Your task to perform on an android device: What's on my calendar tomorrow? Image 0: 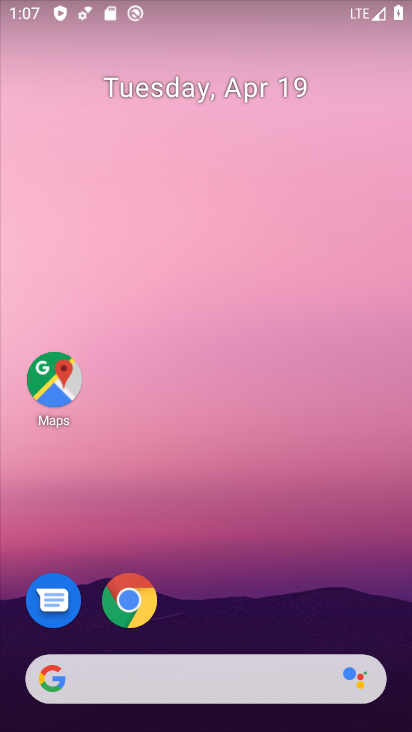
Step 0: drag from (211, 652) to (191, 23)
Your task to perform on an android device: What's on my calendar tomorrow? Image 1: 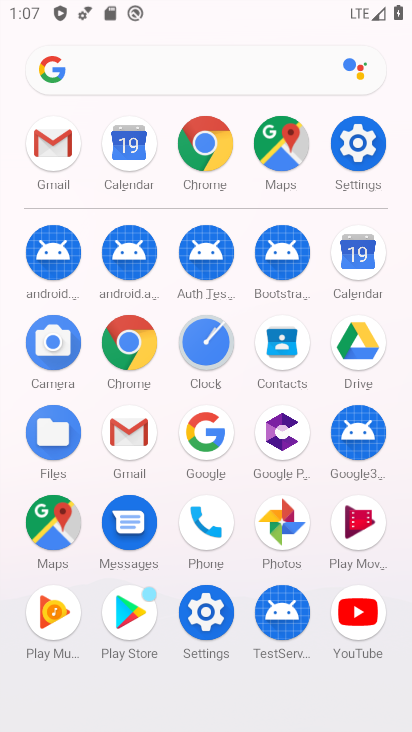
Step 1: click (366, 258)
Your task to perform on an android device: What's on my calendar tomorrow? Image 2: 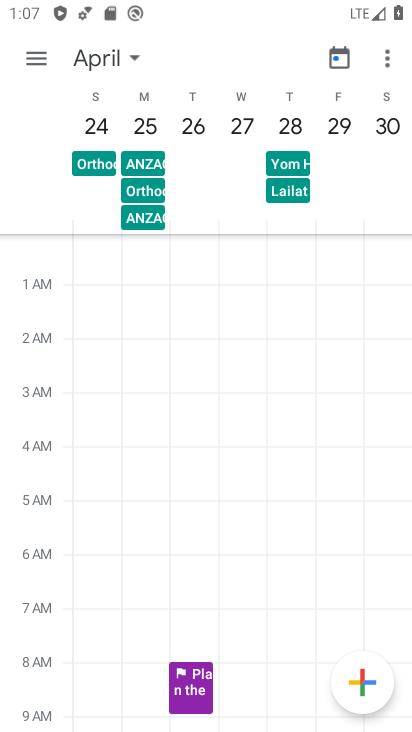
Step 2: click (40, 49)
Your task to perform on an android device: What's on my calendar tomorrow? Image 3: 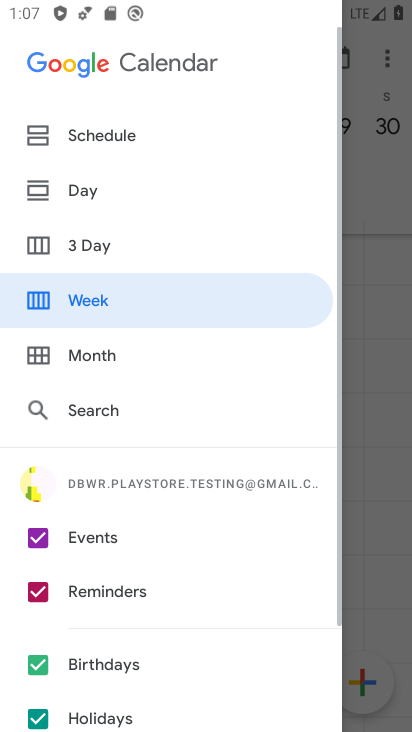
Step 3: click (81, 251)
Your task to perform on an android device: What's on my calendar tomorrow? Image 4: 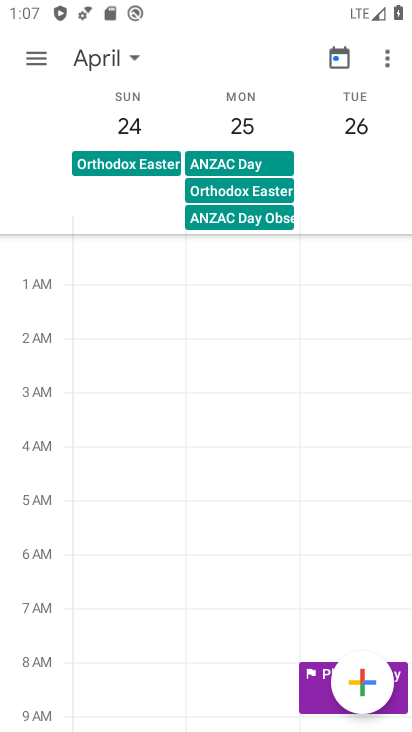
Step 4: click (251, 113)
Your task to perform on an android device: What's on my calendar tomorrow? Image 5: 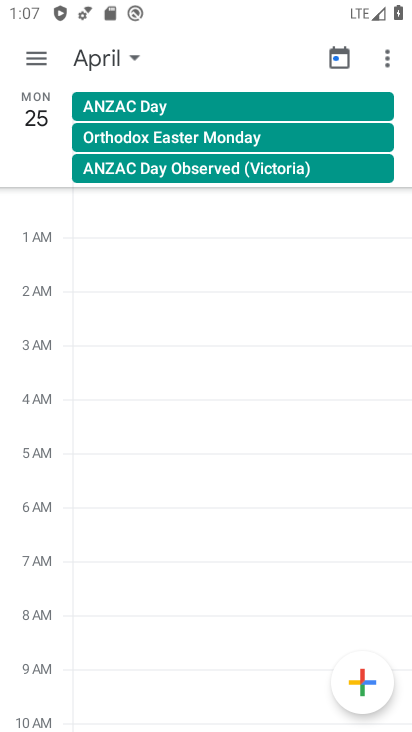
Step 5: task complete